Your task to perform on an android device: all mails in gmail Image 0: 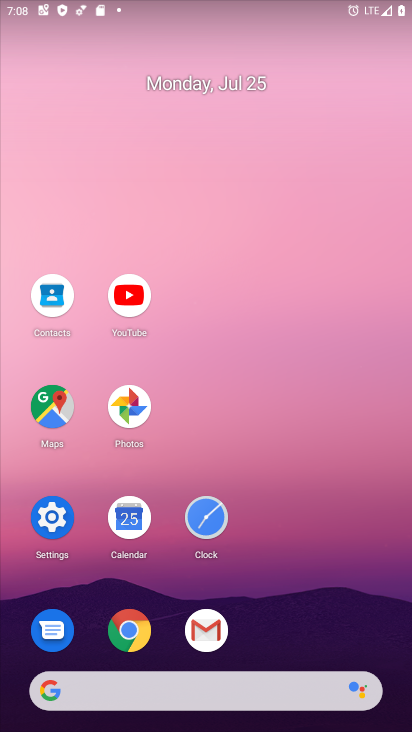
Step 0: click (200, 625)
Your task to perform on an android device: all mails in gmail Image 1: 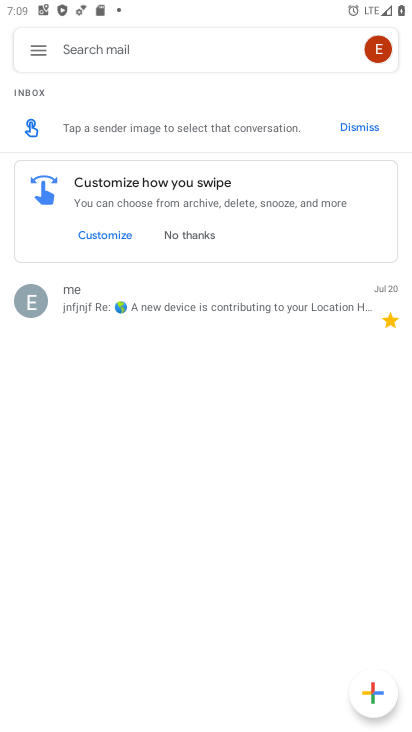
Step 1: click (34, 54)
Your task to perform on an android device: all mails in gmail Image 2: 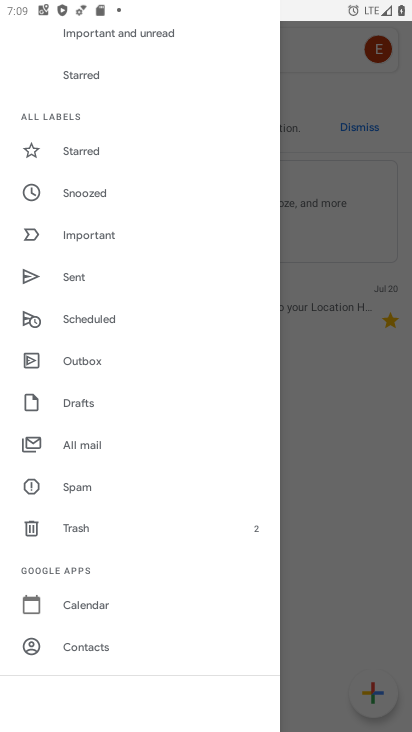
Step 2: click (84, 442)
Your task to perform on an android device: all mails in gmail Image 3: 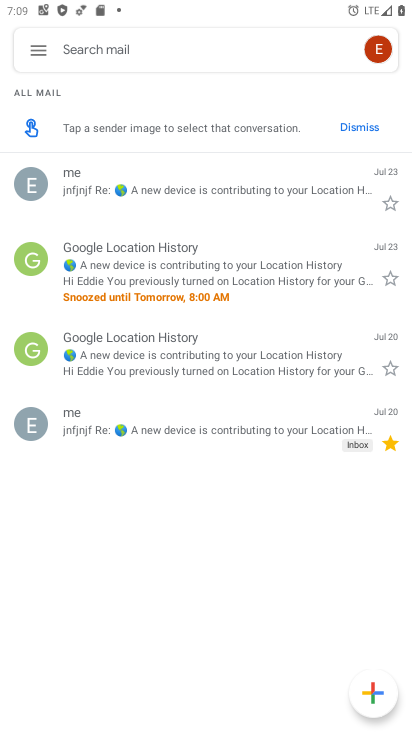
Step 3: task complete